Your task to perform on an android device: Open eBay Image 0: 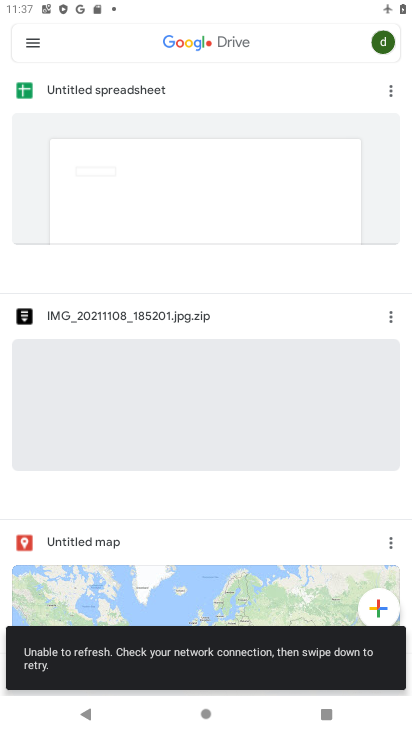
Step 0: press home button
Your task to perform on an android device: Open eBay Image 1: 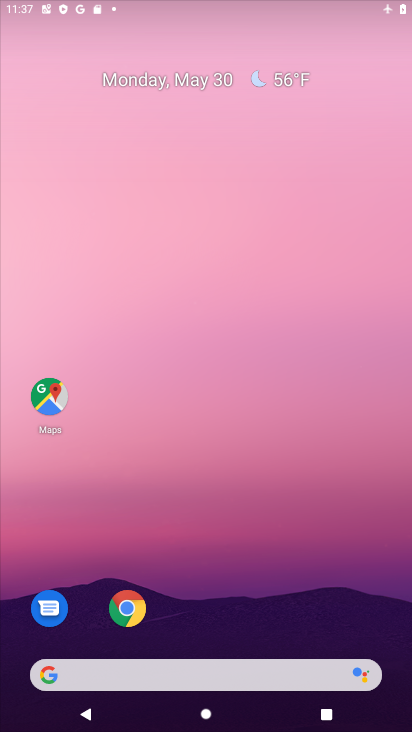
Step 1: drag from (210, 618) to (236, 36)
Your task to perform on an android device: Open eBay Image 2: 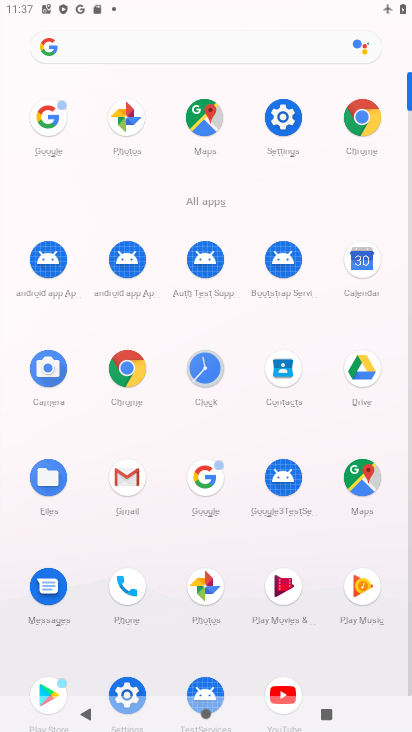
Step 2: click (206, 478)
Your task to perform on an android device: Open eBay Image 3: 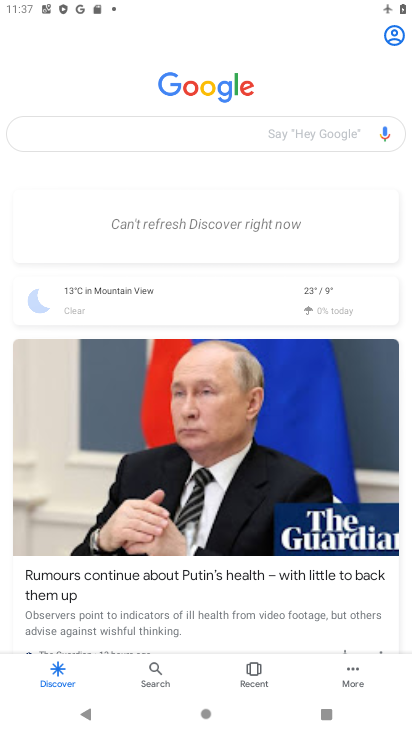
Step 3: click (202, 128)
Your task to perform on an android device: Open eBay Image 4: 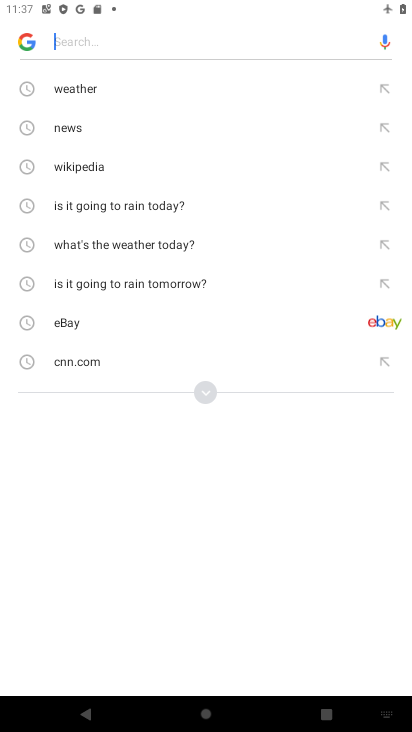
Step 4: click (109, 324)
Your task to perform on an android device: Open eBay Image 5: 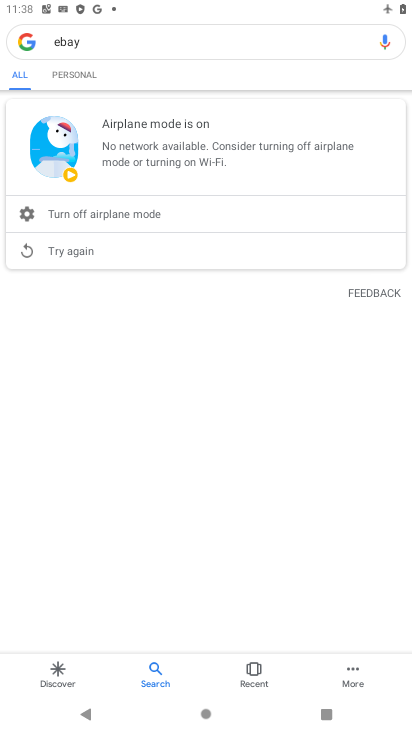
Step 5: task complete